Your task to perform on an android device: check battery use Image 0: 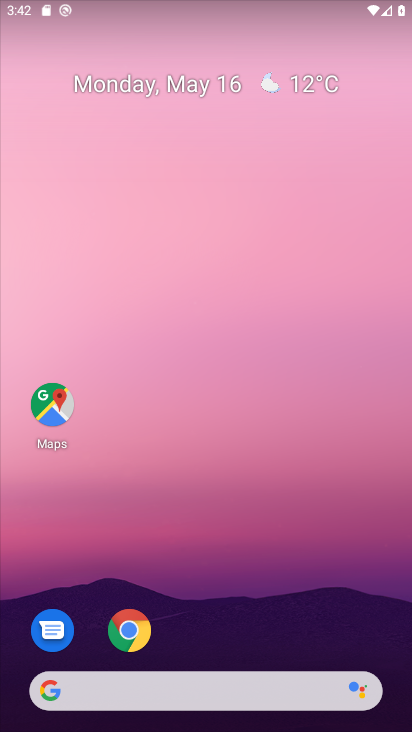
Step 0: drag from (202, 669) to (384, 139)
Your task to perform on an android device: check battery use Image 1: 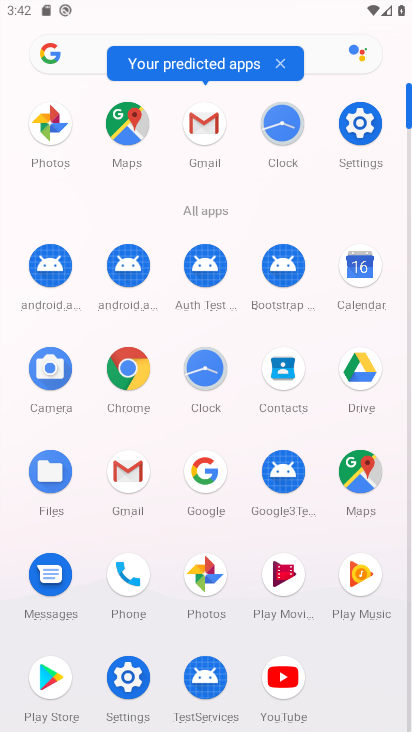
Step 1: click (112, 674)
Your task to perform on an android device: check battery use Image 2: 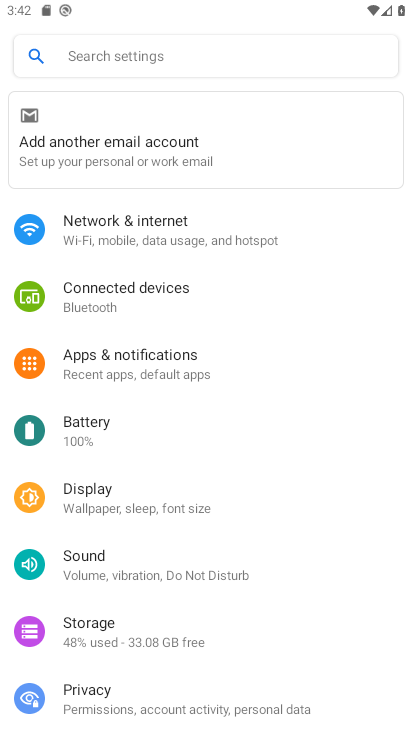
Step 2: click (162, 445)
Your task to perform on an android device: check battery use Image 3: 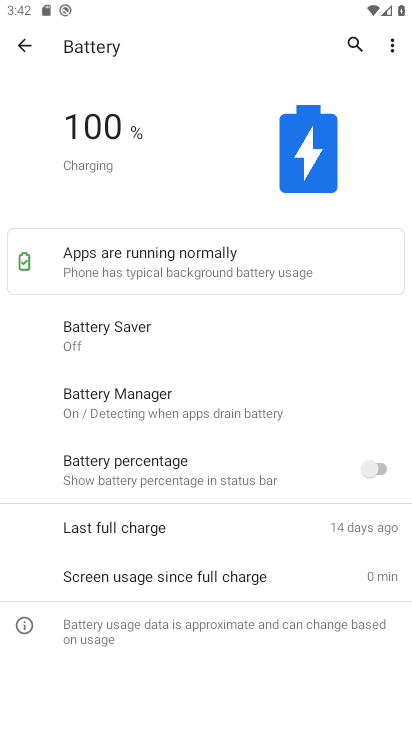
Step 3: click (405, 56)
Your task to perform on an android device: check battery use Image 4: 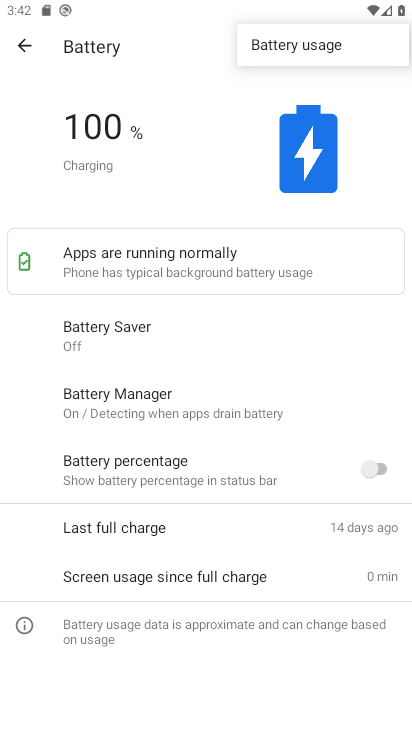
Step 4: click (374, 36)
Your task to perform on an android device: check battery use Image 5: 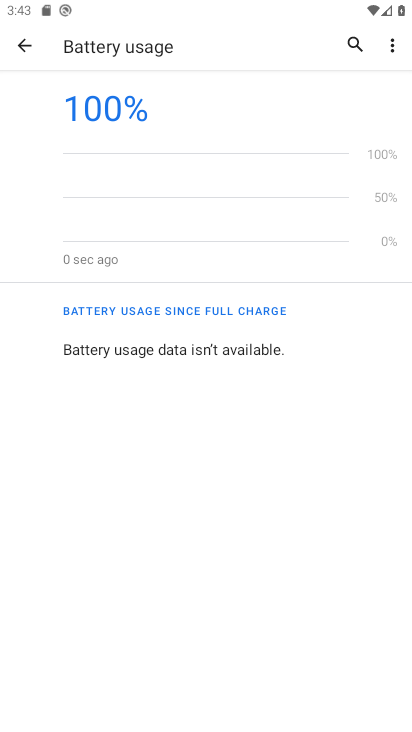
Step 5: task complete